Your task to perform on an android device: turn on data saver in the chrome app Image 0: 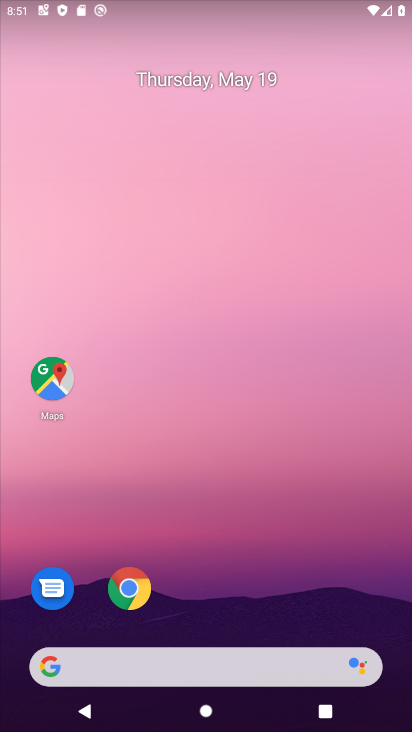
Step 0: press home button
Your task to perform on an android device: turn on data saver in the chrome app Image 1: 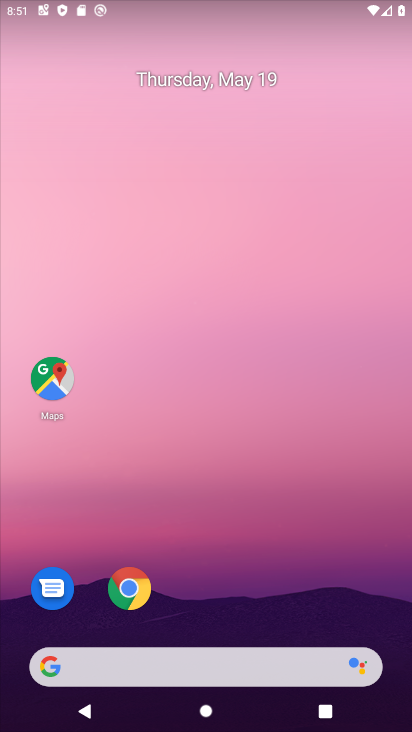
Step 1: click (142, 589)
Your task to perform on an android device: turn on data saver in the chrome app Image 2: 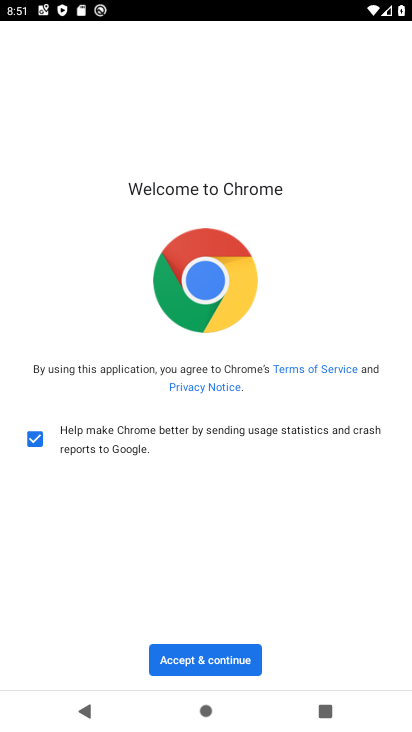
Step 2: click (204, 660)
Your task to perform on an android device: turn on data saver in the chrome app Image 3: 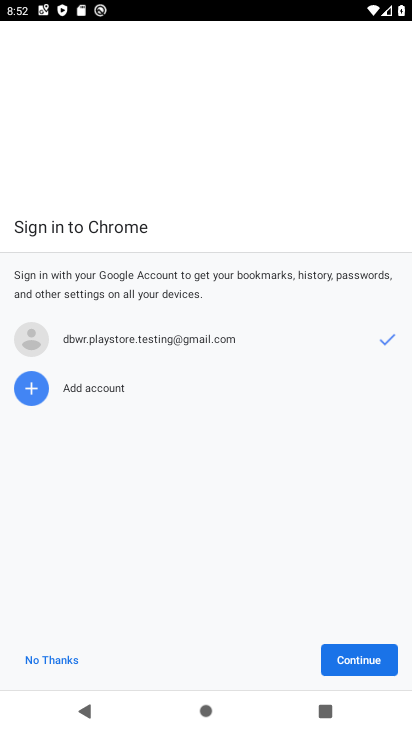
Step 3: click (359, 659)
Your task to perform on an android device: turn on data saver in the chrome app Image 4: 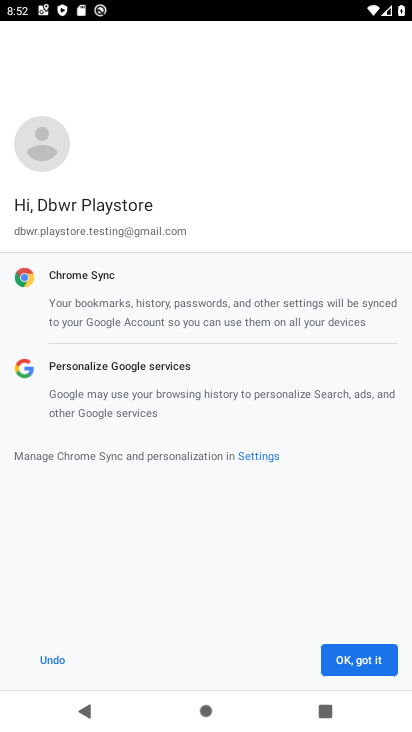
Step 4: click (359, 659)
Your task to perform on an android device: turn on data saver in the chrome app Image 5: 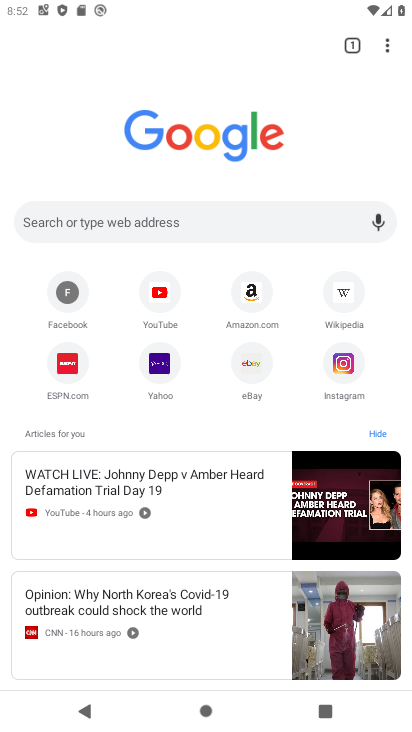
Step 5: drag from (386, 43) to (226, 377)
Your task to perform on an android device: turn on data saver in the chrome app Image 6: 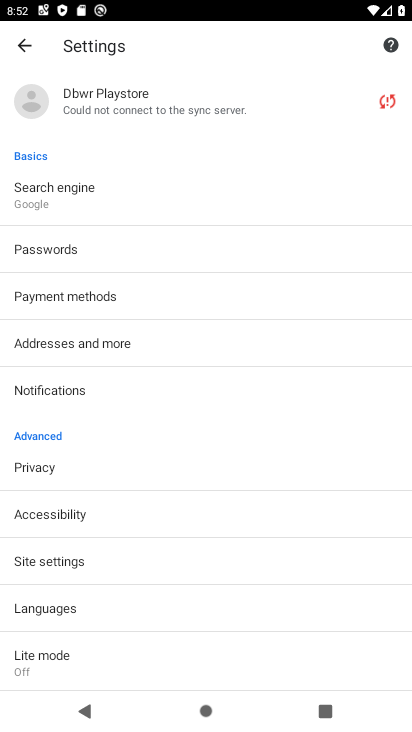
Step 6: click (84, 647)
Your task to perform on an android device: turn on data saver in the chrome app Image 7: 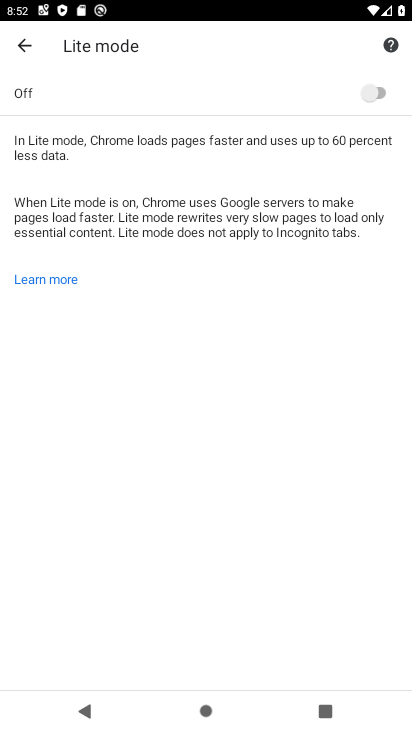
Step 7: click (377, 95)
Your task to perform on an android device: turn on data saver in the chrome app Image 8: 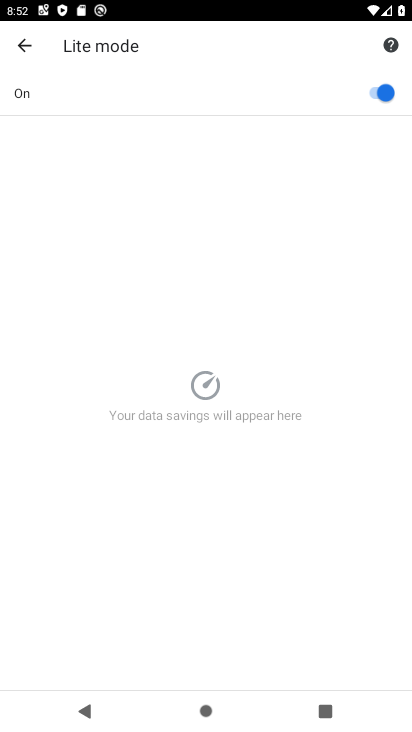
Step 8: task complete